Your task to perform on an android device: Search for 3d printed chess sets on Etsy. Image 0: 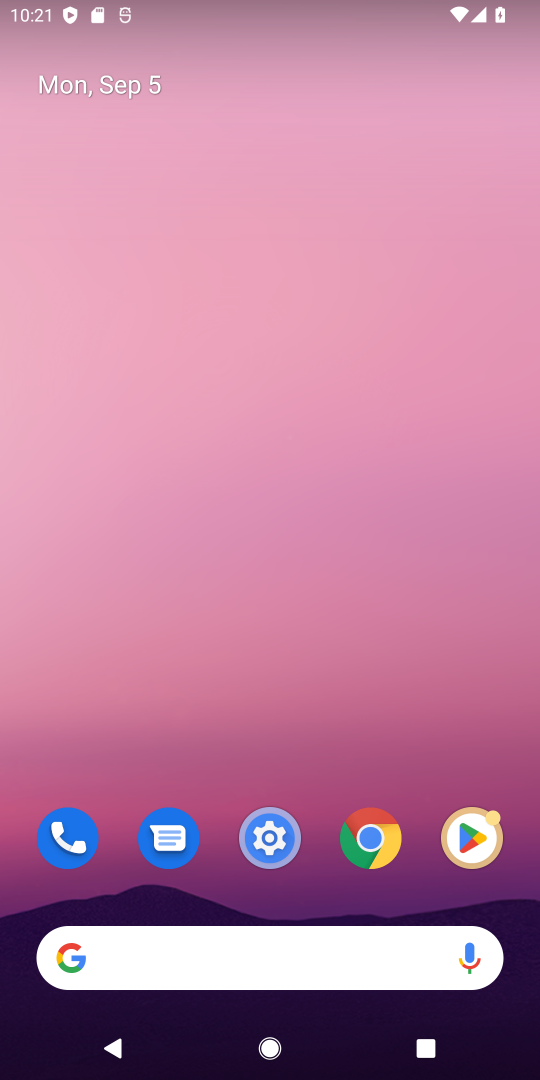
Step 0: click (296, 967)
Your task to perform on an android device: Search for 3d printed chess sets on Etsy. Image 1: 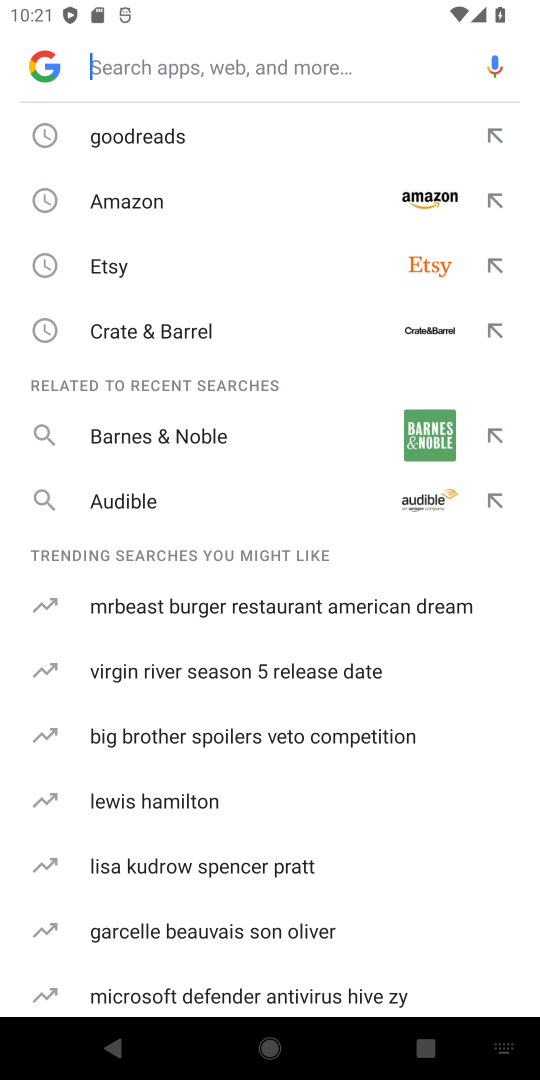
Step 1: click (71, 269)
Your task to perform on an android device: Search for 3d printed chess sets on Etsy. Image 2: 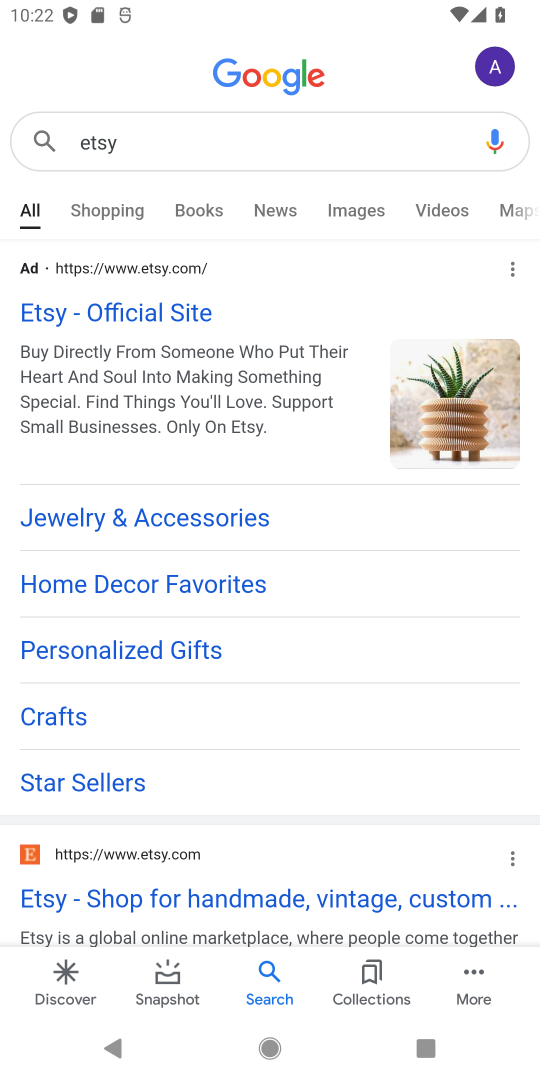
Step 2: click (259, 894)
Your task to perform on an android device: Search for 3d printed chess sets on Etsy. Image 3: 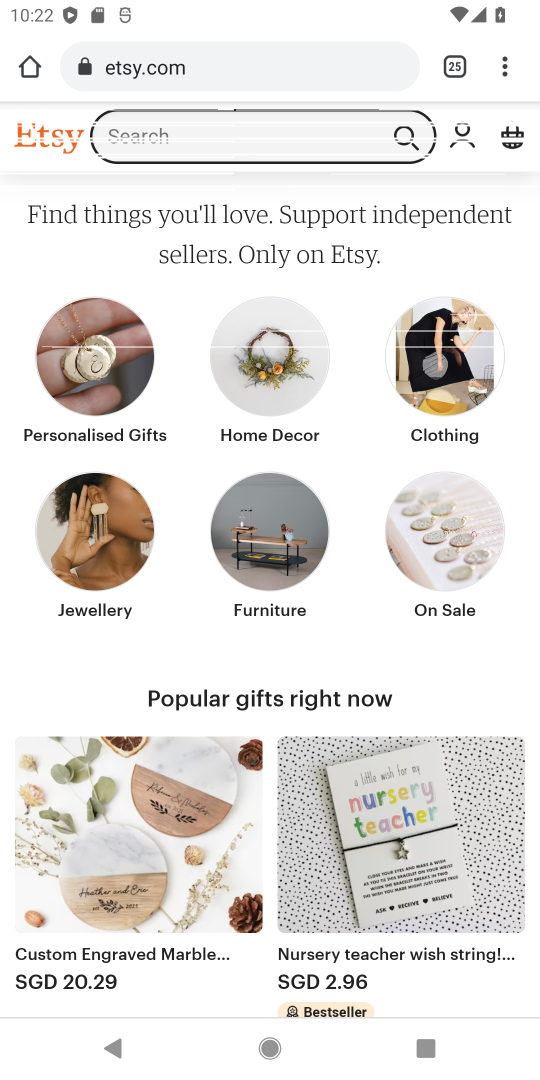
Step 3: click (203, 151)
Your task to perform on an android device: Search for 3d printed chess sets on Etsy. Image 4: 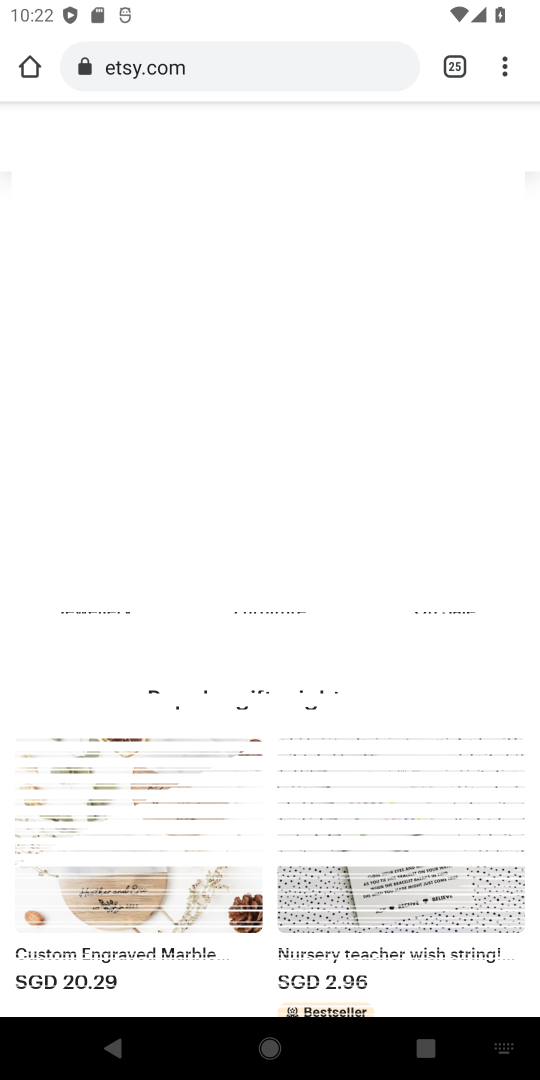
Step 4: type "3d printed chess sets"
Your task to perform on an android device: Search for 3d printed chess sets on Etsy. Image 5: 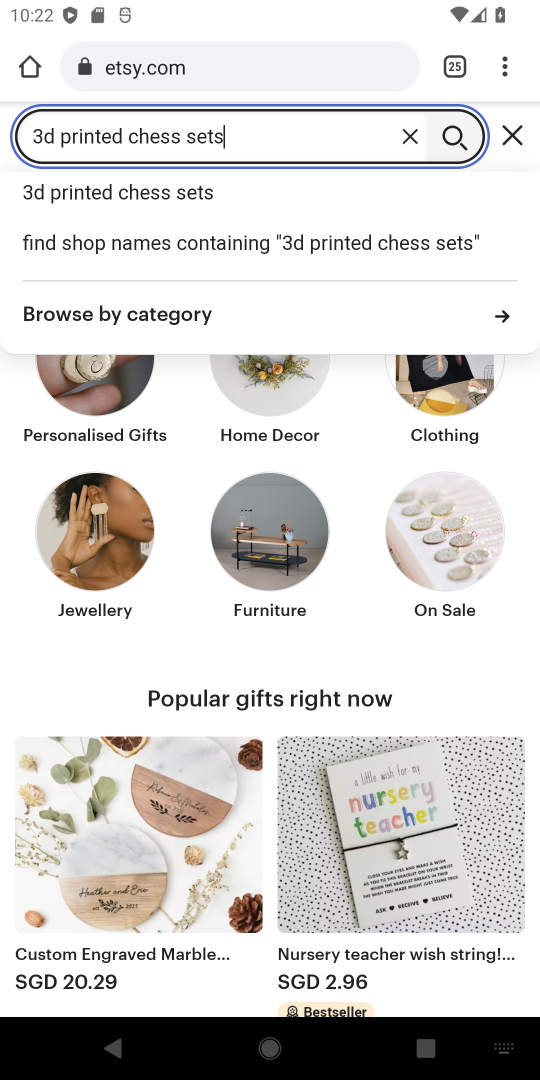
Step 5: click (208, 189)
Your task to perform on an android device: Search for 3d printed chess sets on Etsy. Image 6: 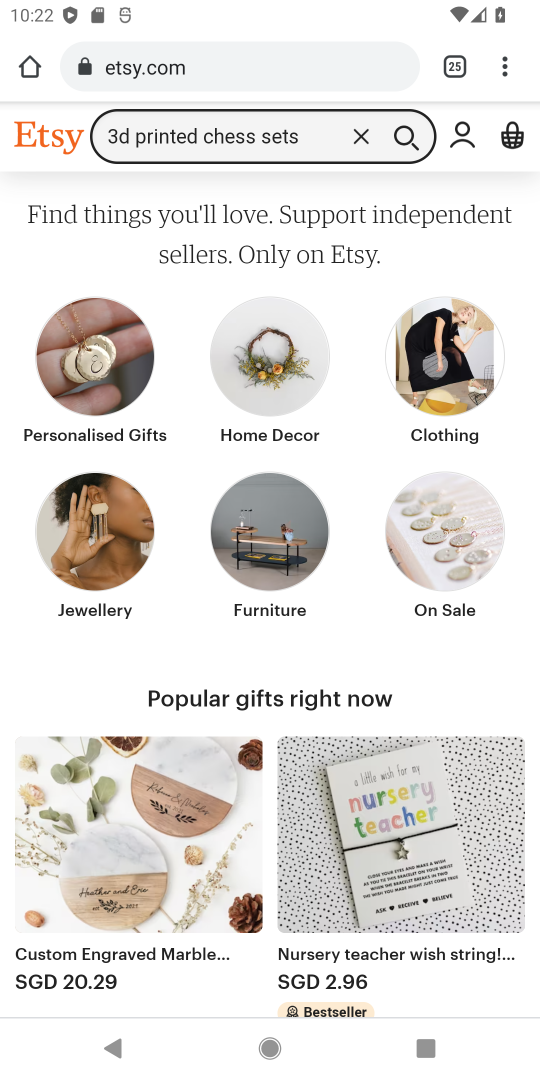
Step 6: click (405, 135)
Your task to perform on an android device: Search for 3d printed chess sets on Etsy. Image 7: 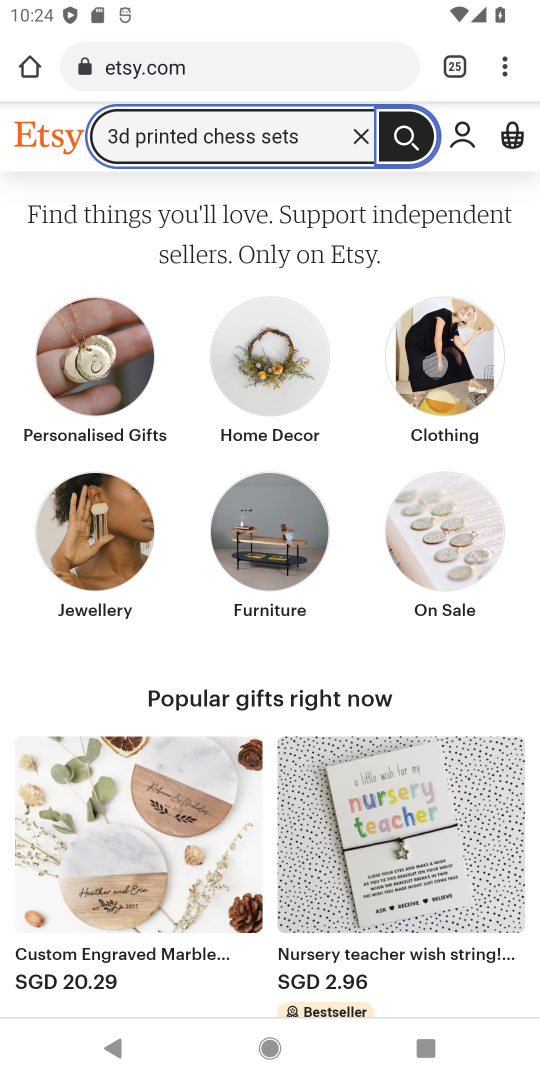
Step 7: task complete